Your task to perform on an android device: check storage Image 0: 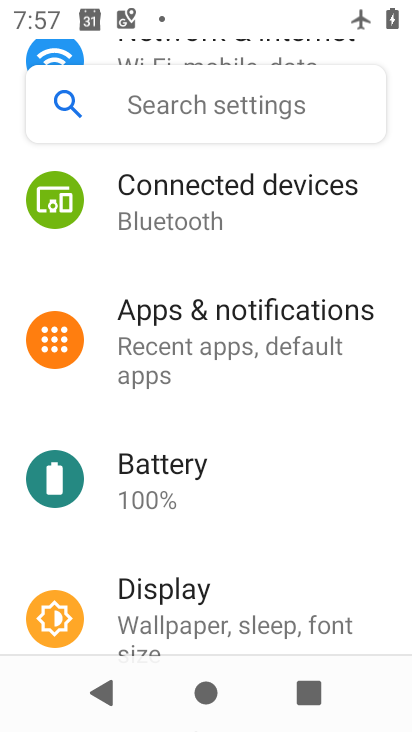
Step 0: press home button
Your task to perform on an android device: check storage Image 1: 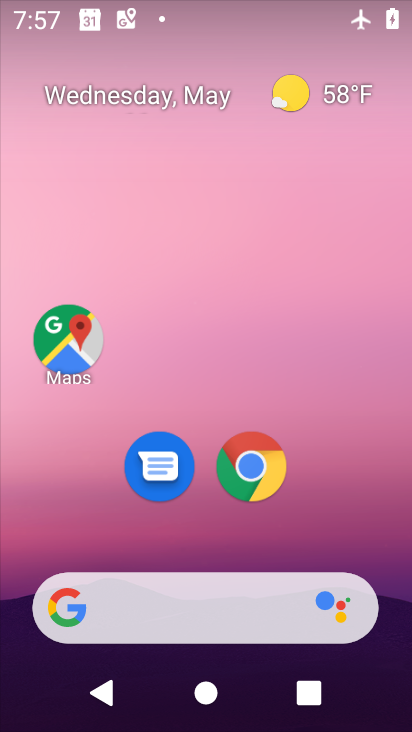
Step 1: drag from (206, 540) to (231, 51)
Your task to perform on an android device: check storage Image 2: 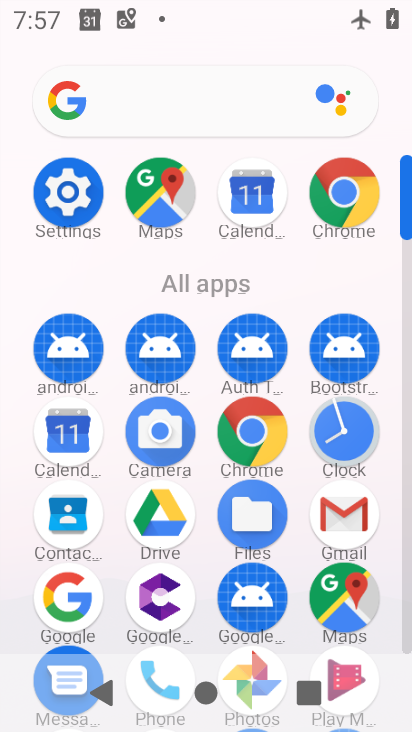
Step 2: click (66, 189)
Your task to perform on an android device: check storage Image 3: 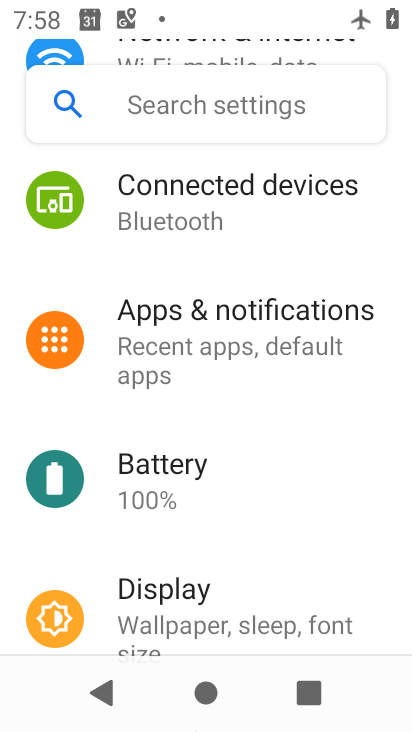
Step 3: drag from (244, 578) to (260, 156)
Your task to perform on an android device: check storage Image 4: 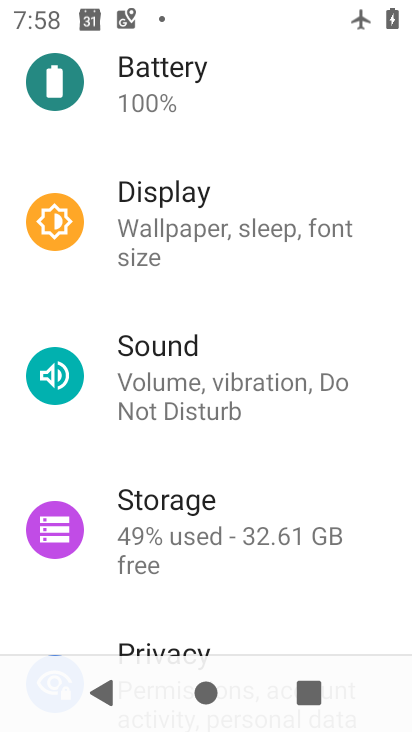
Step 4: click (228, 506)
Your task to perform on an android device: check storage Image 5: 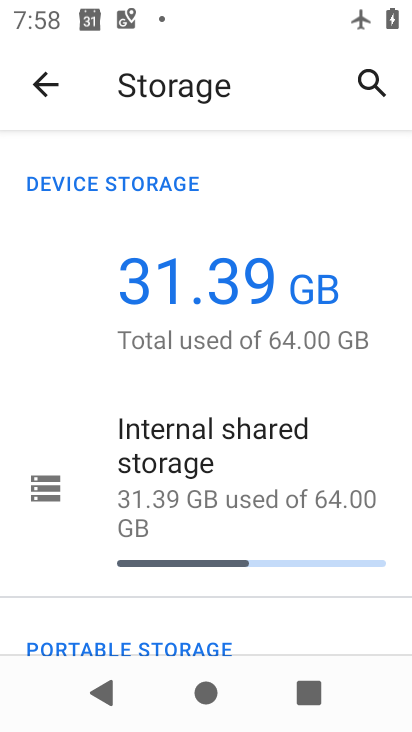
Step 5: task complete